Your task to perform on an android device: open a bookmark in the chrome app Image 0: 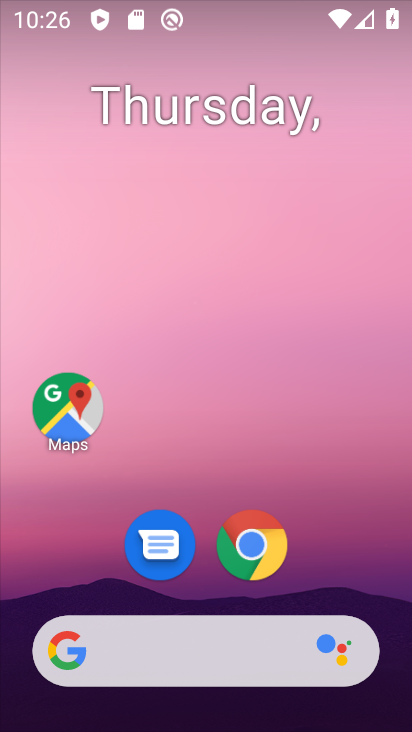
Step 0: click (253, 544)
Your task to perform on an android device: open a bookmark in the chrome app Image 1: 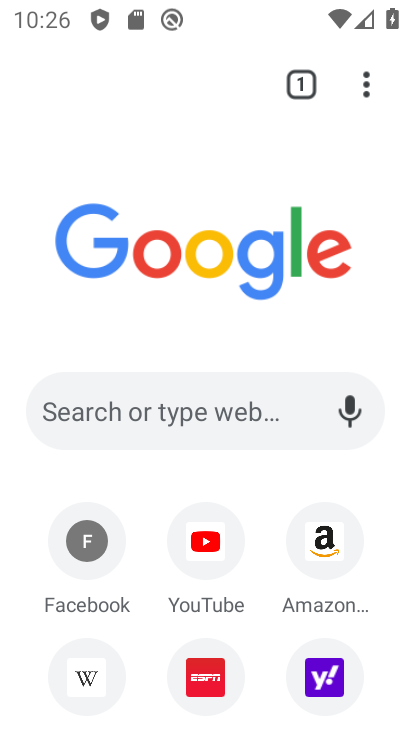
Step 1: click (367, 82)
Your task to perform on an android device: open a bookmark in the chrome app Image 2: 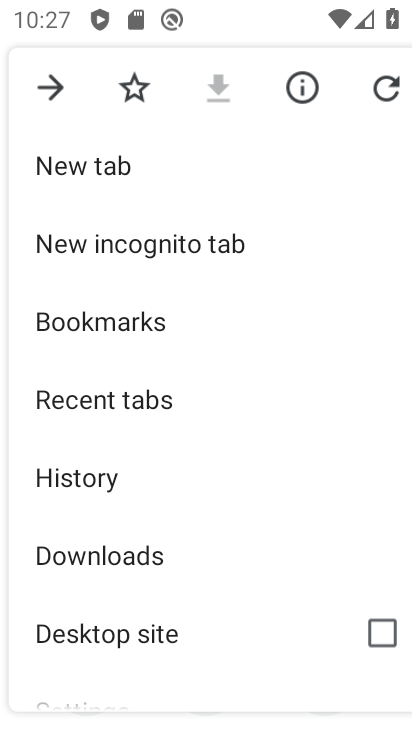
Step 2: click (122, 321)
Your task to perform on an android device: open a bookmark in the chrome app Image 3: 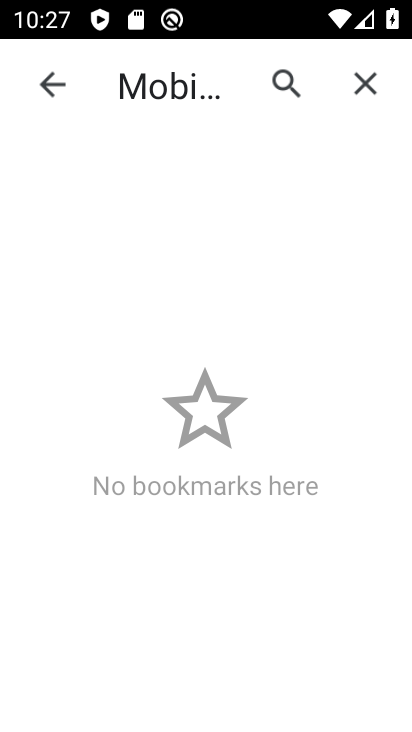
Step 3: task complete